Your task to perform on an android device: Search for Italian restaurants on Maps Image 0: 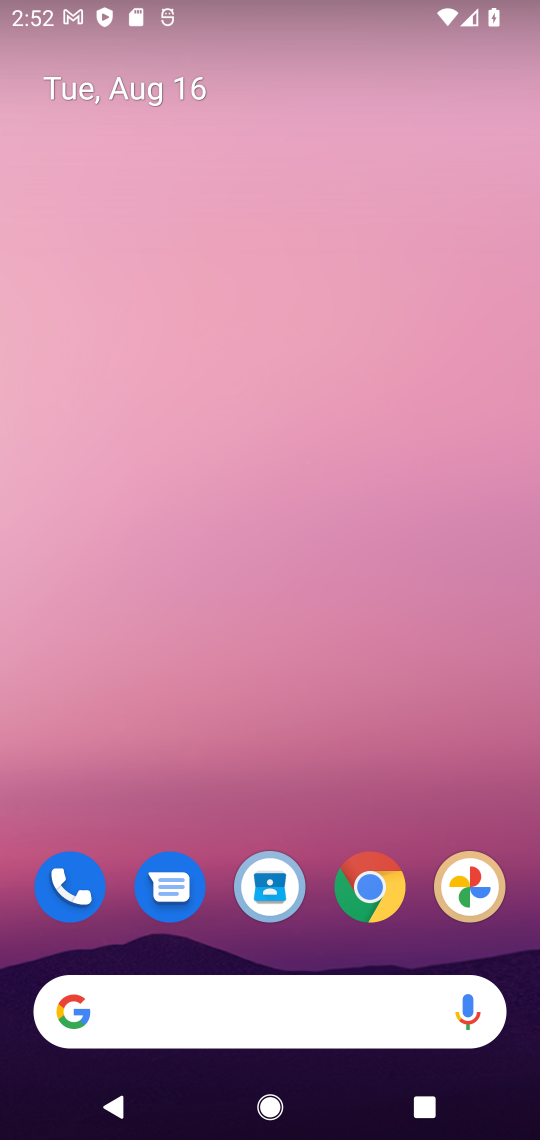
Step 0: drag from (306, 791) to (242, 183)
Your task to perform on an android device: Search for Italian restaurants on Maps Image 1: 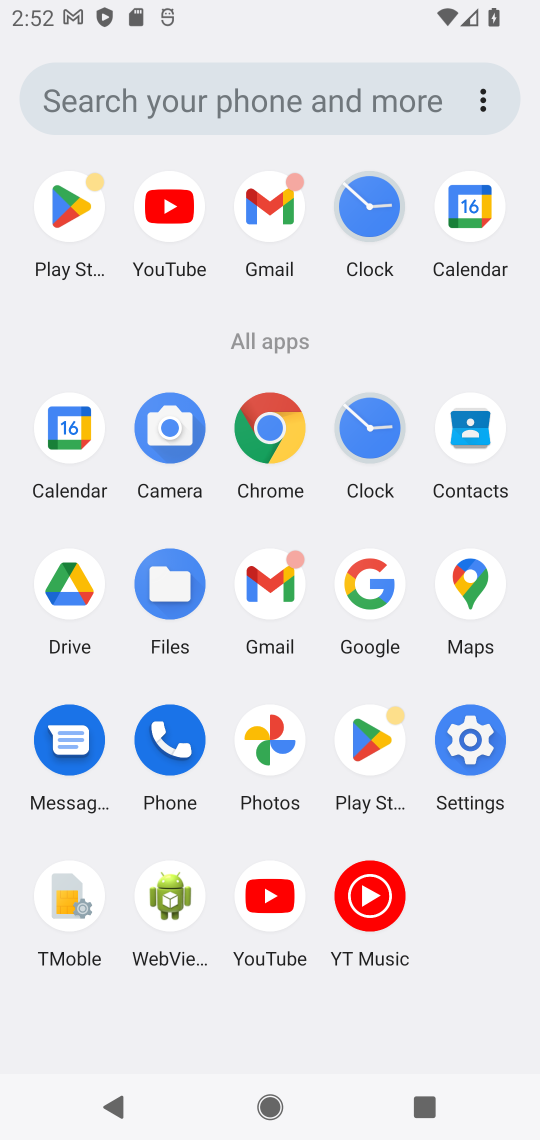
Step 1: click (467, 589)
Your task to perform on an android device: Search for Italian restaurants on Maps Image 2: 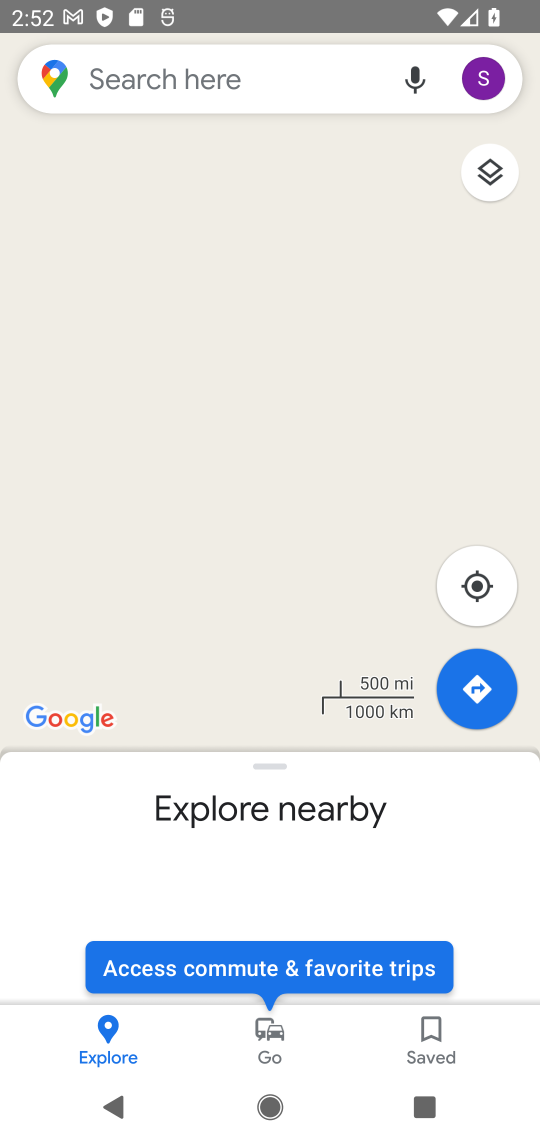
Step 2: click (241, 93)
Your task to perform on an android device: Search for Italian restaurants on Maps Image 3: 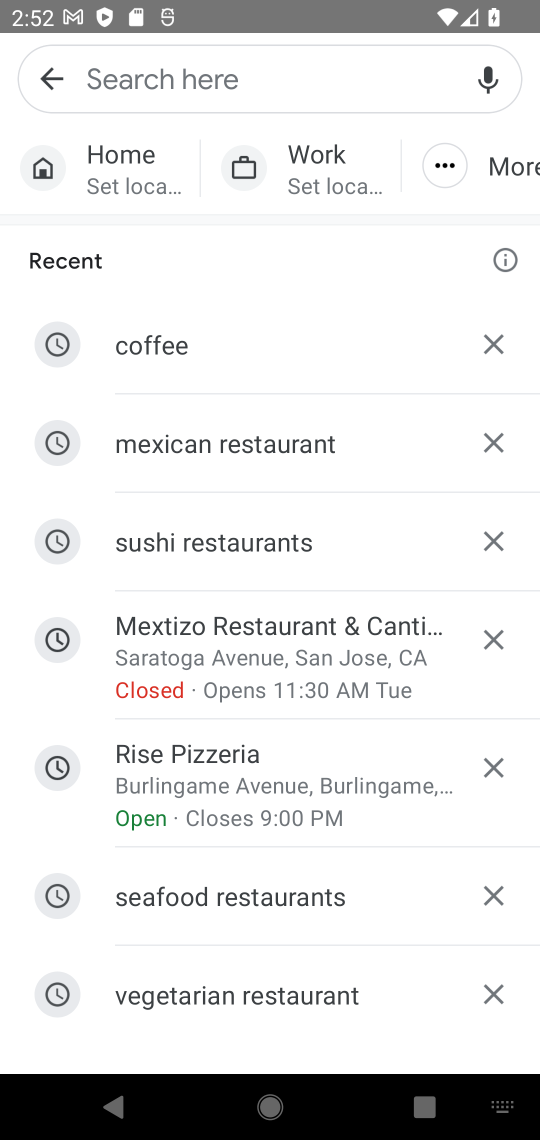
Step 3: type "Italian restaurants"
Your task to perform on an android device: Search for Italian restaurants on Maps Image 4: 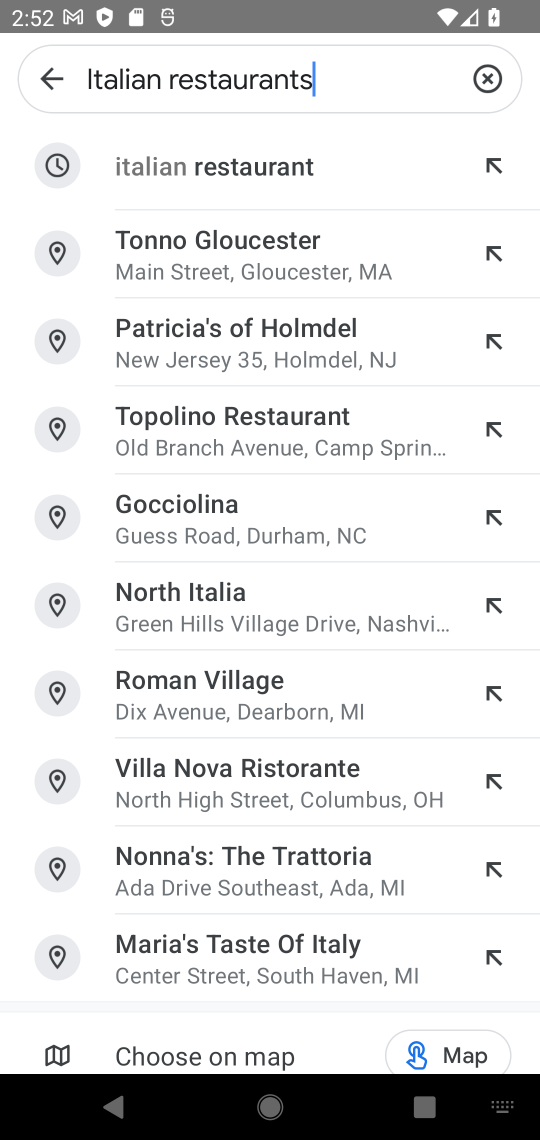
Step 4: press enter
Your task to perform on an android device: Search for Italian restaurants on Maps Image 5: 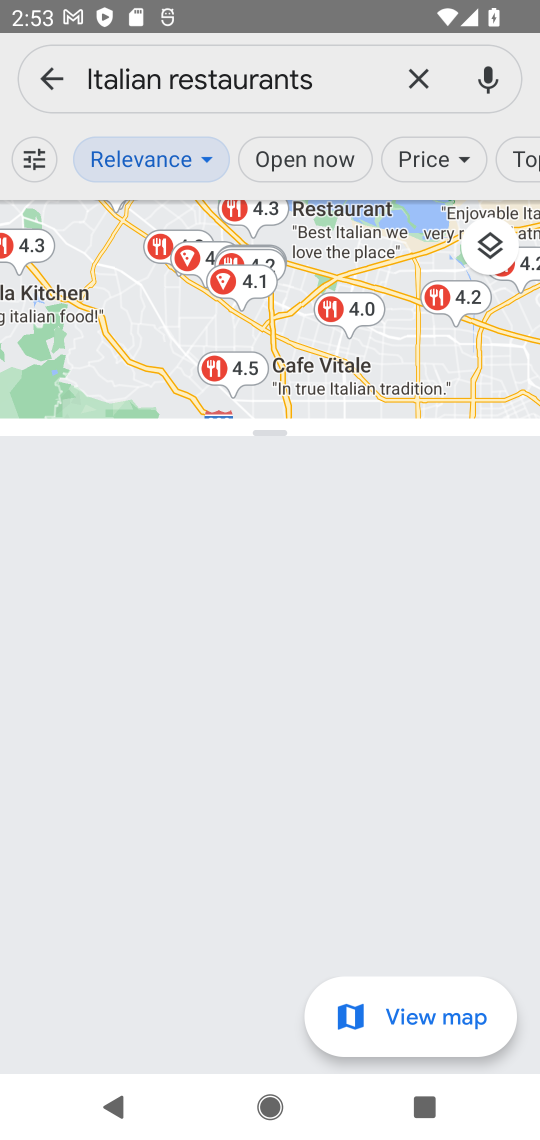
Step 5: task complete